Your task to perform on an android device: turn on javascript in the chrome app Image 0: 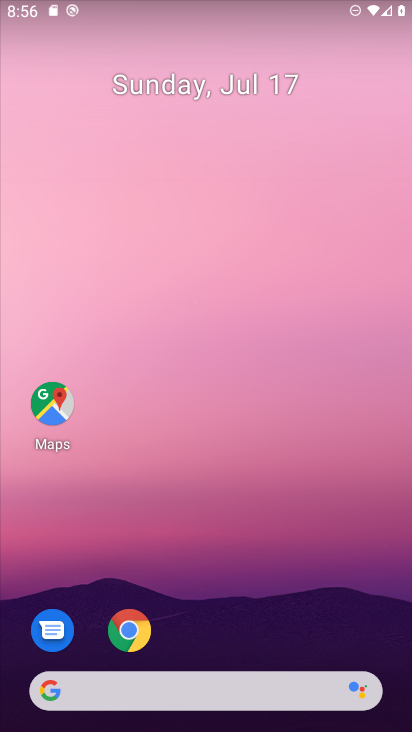
Step 0: drag from (230, 649) to (191, 397)
Your task to perform on an android device: turn on javascript in the chrome app Image 1: 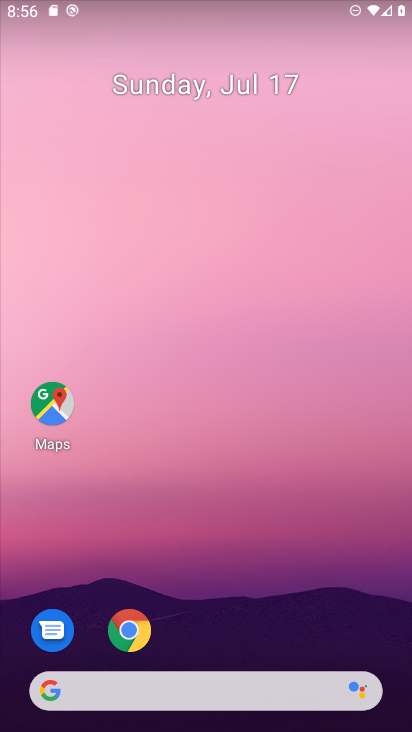
Step 1: drag from (249, 593) to (246, 146)
Your task to perform on an android device: turn on javascript in the chrome app Image 2: 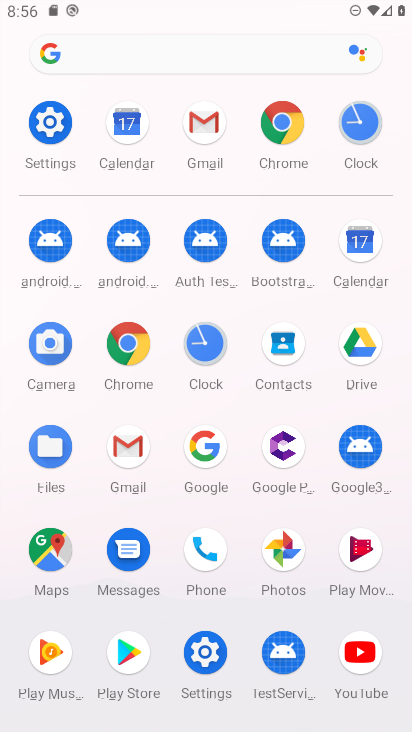
Step 2: click (272, 134)
Your task to perform on an android device: turn on javascript in the chrome app Image 3: 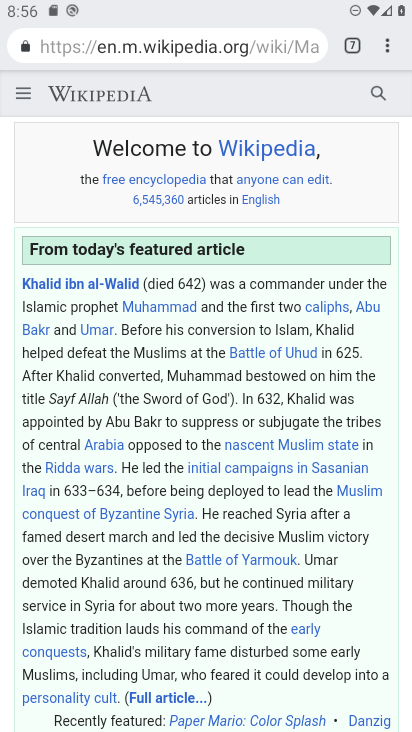
Step 3: click (385, 47)
Your task to perform on an android device: turn on javascript in the chrome app Image 4: 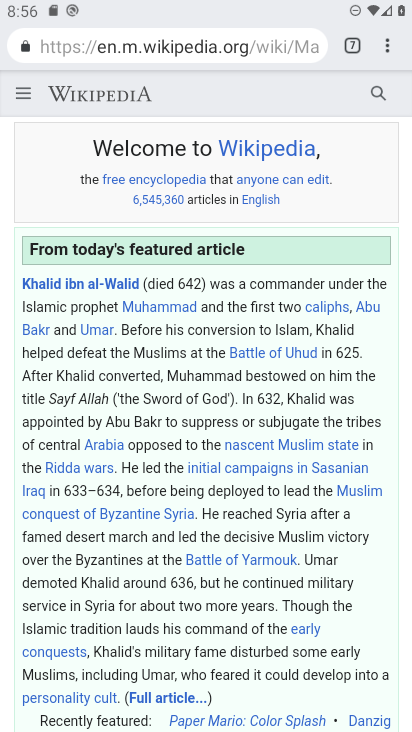
Step 4: click (381, 45)
Your task to perform on an android device: turn on javascript in the chrome app Image 5: 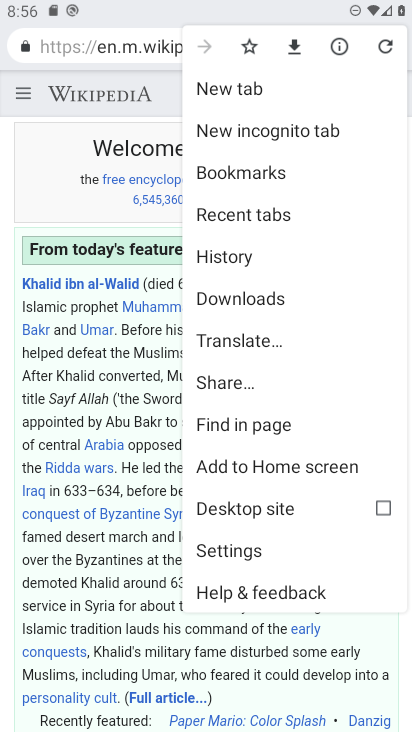
Step 5: click (212, 553)
Your task to perform on an android device: turn on javascript in the chrome app Image 6: 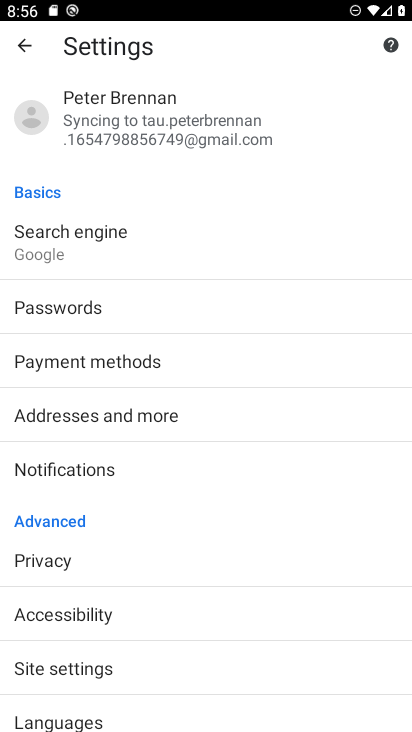
Step 6: drag from (153, 613) to (204, 245)
Your task to perform on an android device: turn on javascript in the chrome app Image 7: 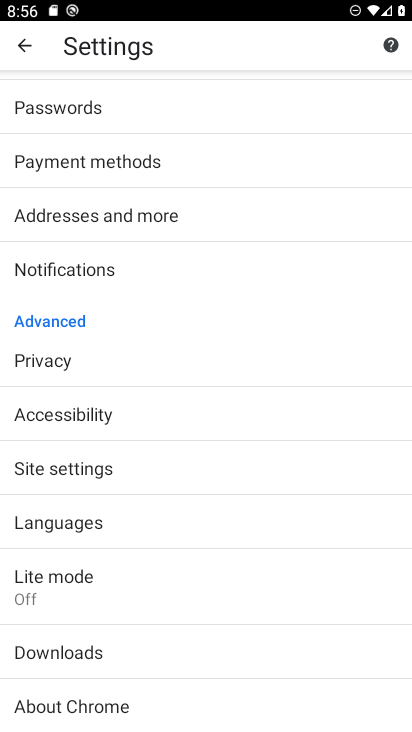
Step 7: click (99, 466)
Your task to perform on an android device: turn on javascript in the chrome app Image 8: 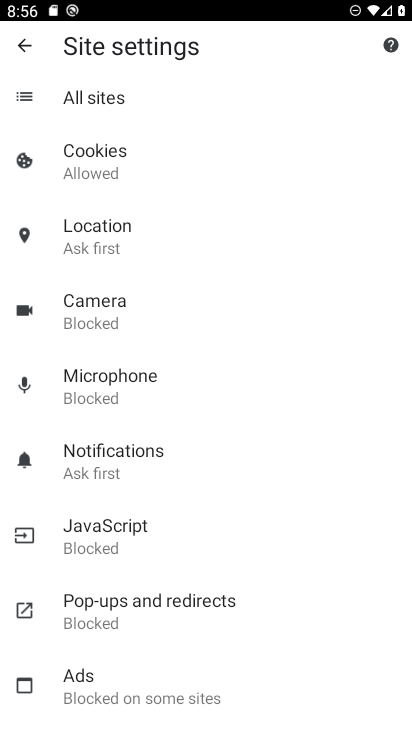
Step 8: click (138, 522)
Your task to perform on an android device: turn on javascript in the chrome app Image 9: 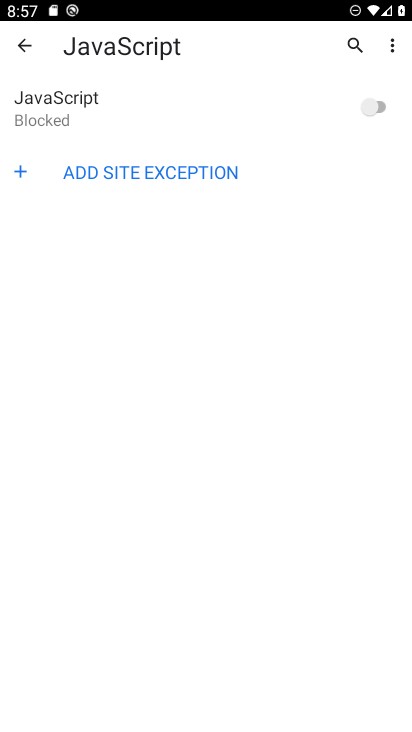
Step 9: click (376, 105)
Your task to perform on an android device: turn on javascript in the chrome app Image 10: 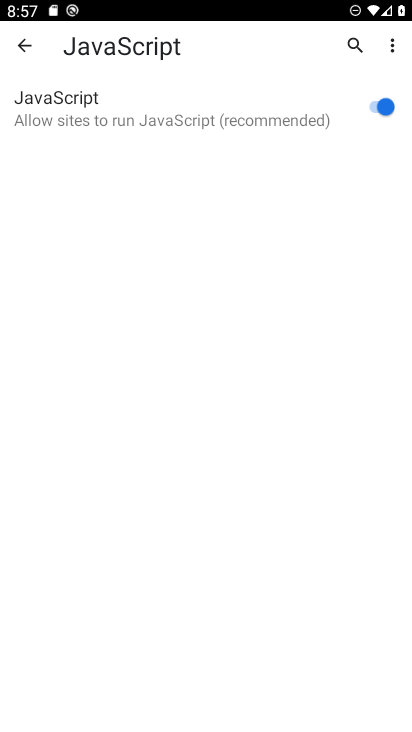
Step 10: task complete